Your task to perform on an android device: show emergency info Image 0: 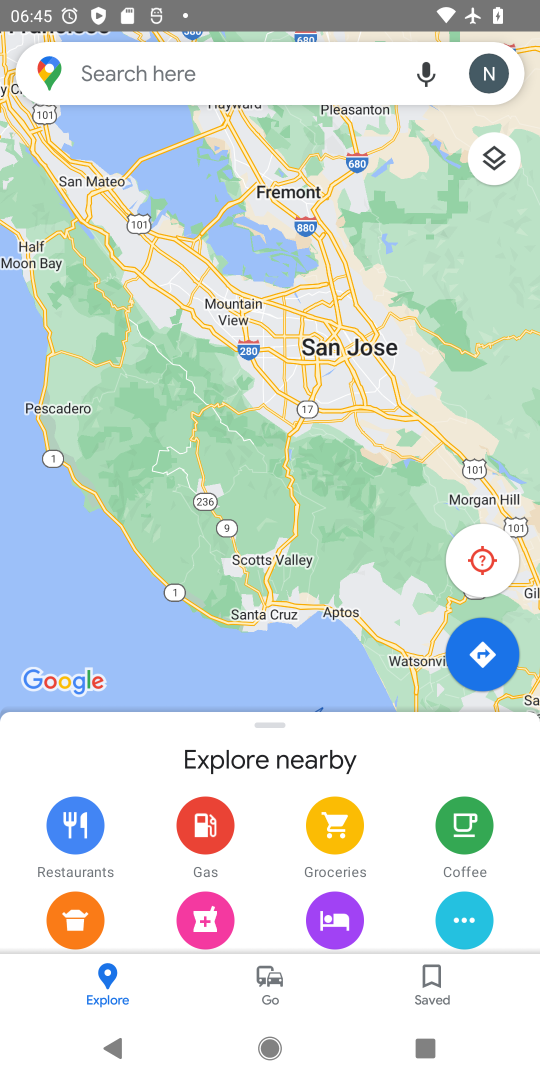
Step 0: press home button
Your task to perform on an android device: show emergency info Image 1: 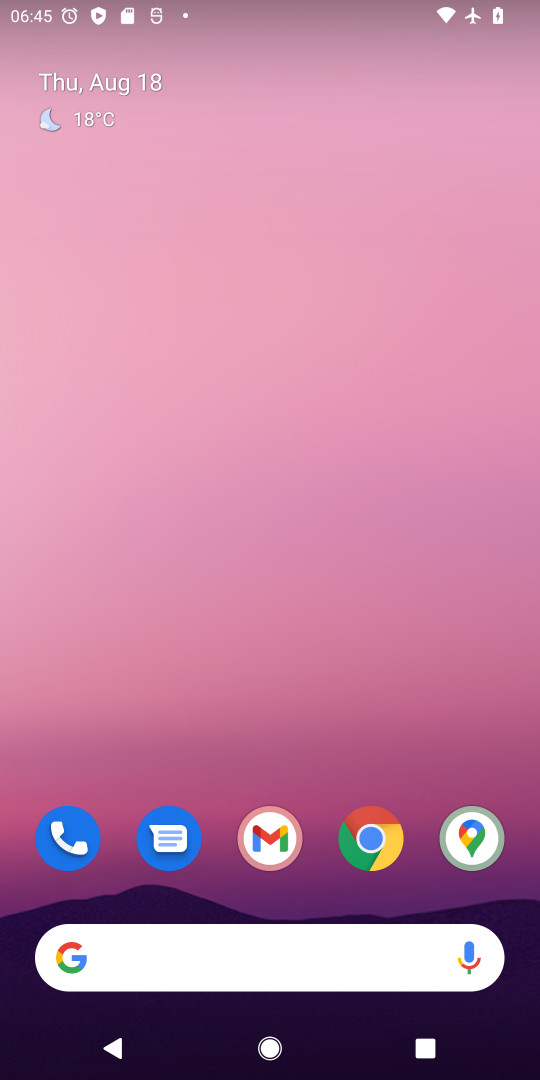
Step 1: drag from (310, 883) to (488, 75)
Your task to perform on an android device: show emergency info Image 2: 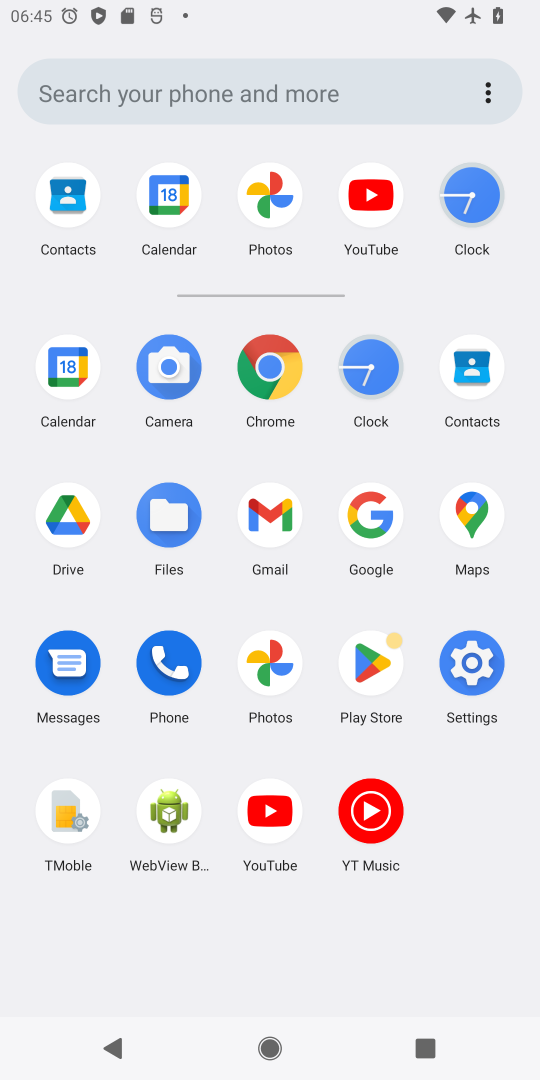
Step 2: click (474, 693)
Your task to perform on an android device: show emergency info Image 3: 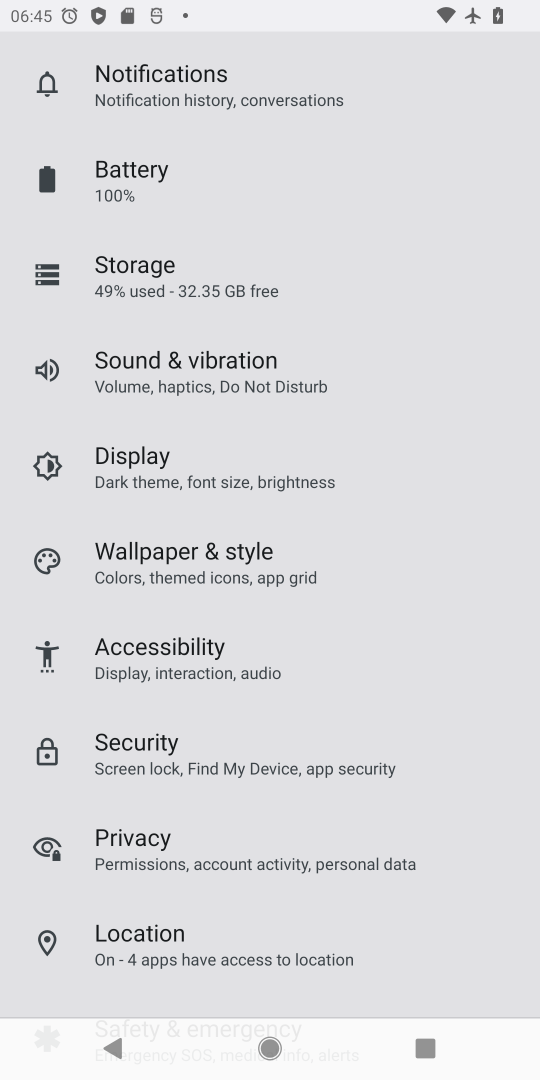
Step 3: drag from (445, 961) to (353, 86)
Your task to perform on an android device: show emergency info Image 4: 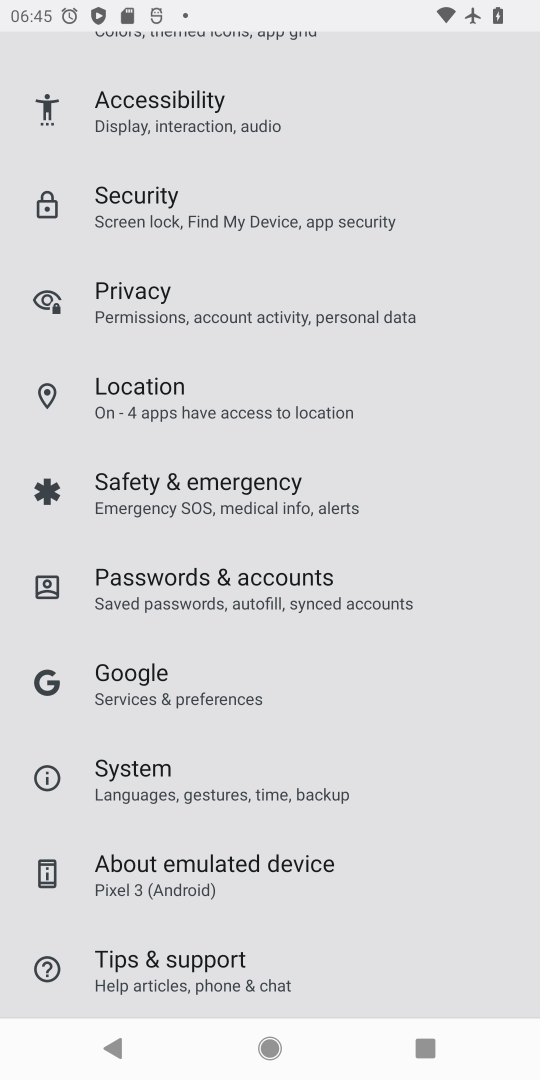
Step 4: click (190, 896)
Your task to perform on an android device: show emergency info Image 5: 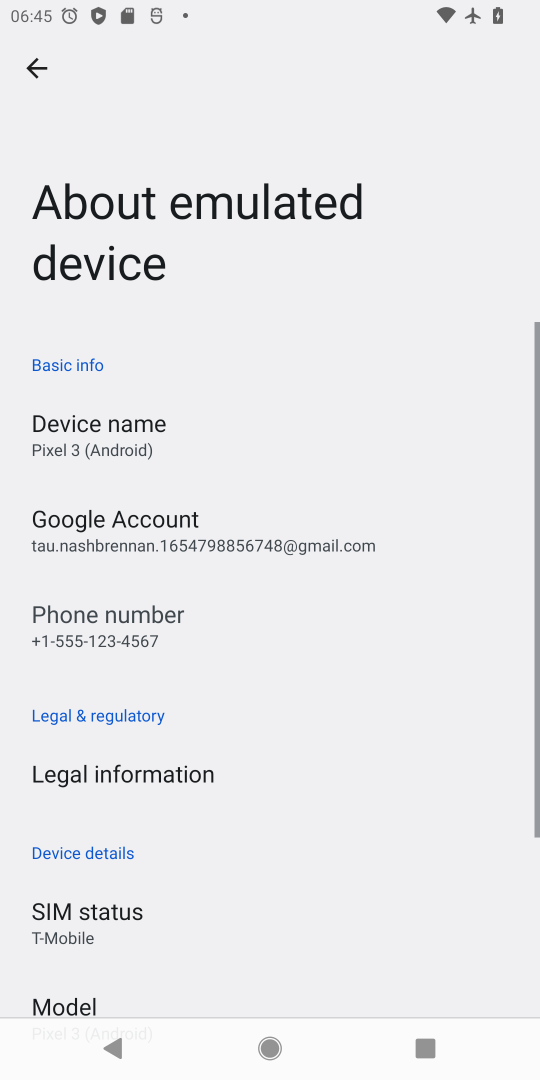
Step 5: drag from (281, 848) to (490, 183)
Your task to perform on an android device: show emergency info Image 6: 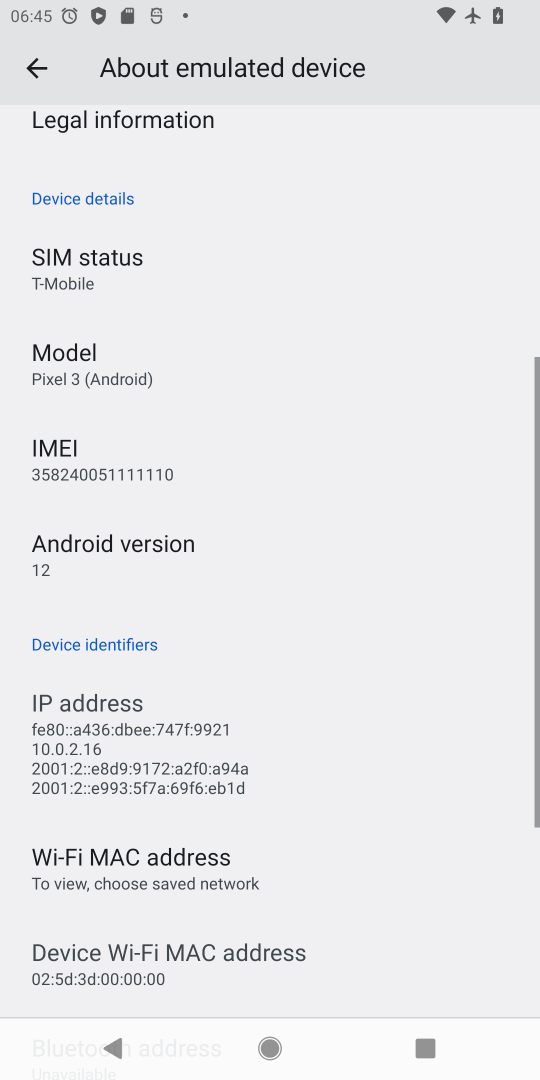
Step 6: drag from (360, 430) to (318, 874)
Your task to perform on an android device: show emergency info Image 7: 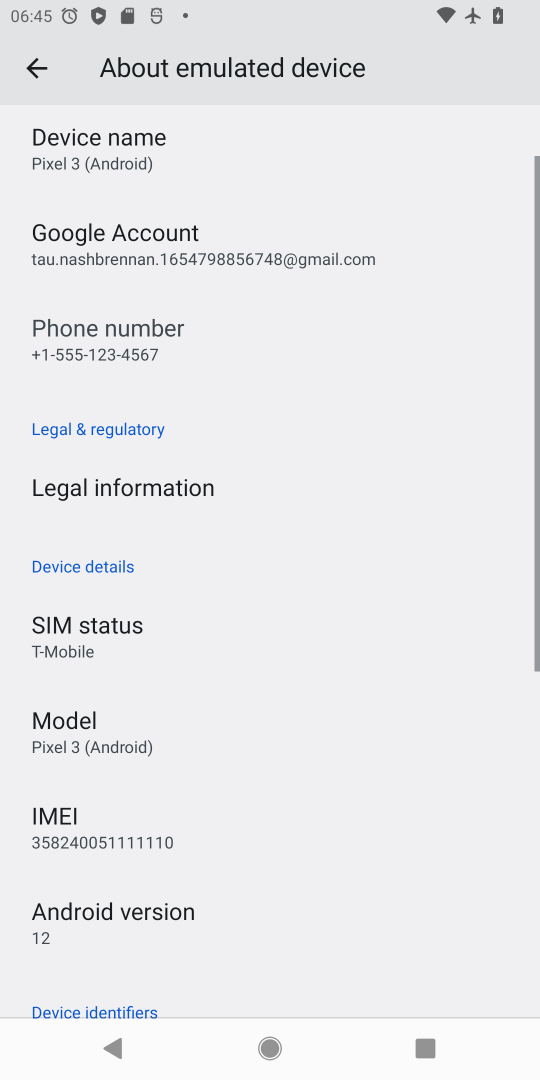
Step 7: click (129, 481)
Your task to perform on an android device: show emergency info Image 8: 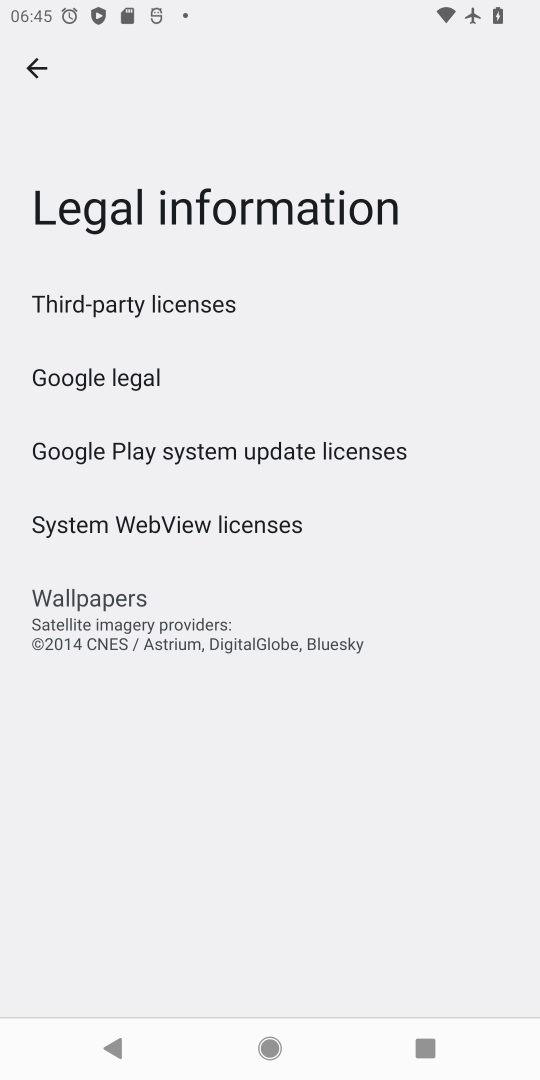
Step 8: task complete